Your task to perform on an android device: toggle notification dots Image 0: 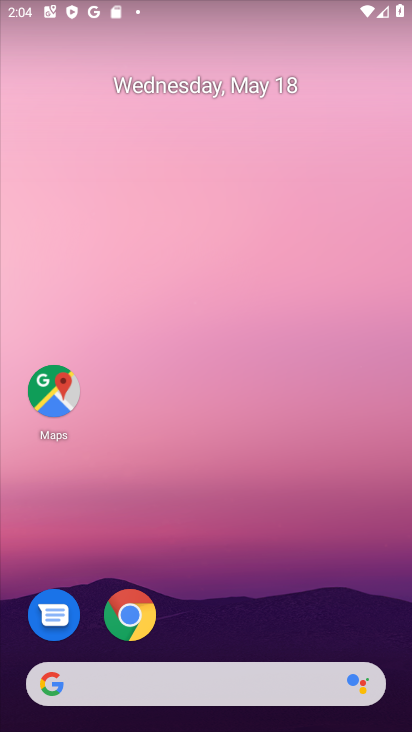
Step 0: drag from (204, 643) to (218, 171)
Your task to perform on an android device: toggle notification dots Image 1: 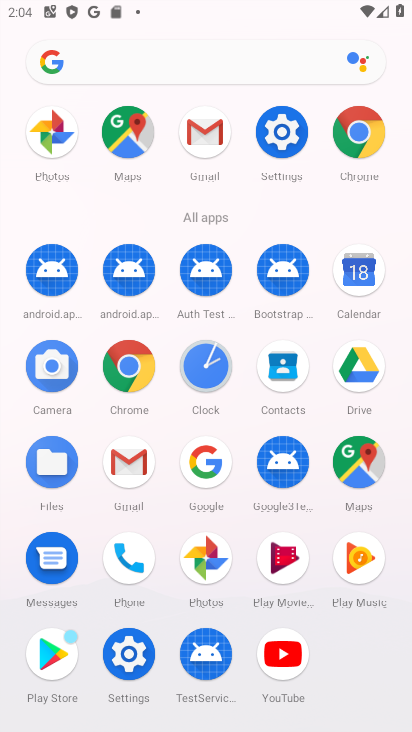
Step 1: click (276, 126)
Your task to perform on an android device: toggle notification dots Image 2: 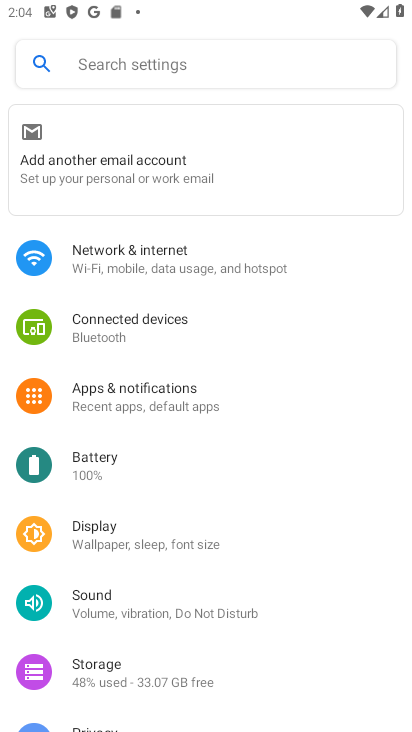
Step 2: click (216, 388)
Your task to perform on an android device: toggle notification dots Image 3: 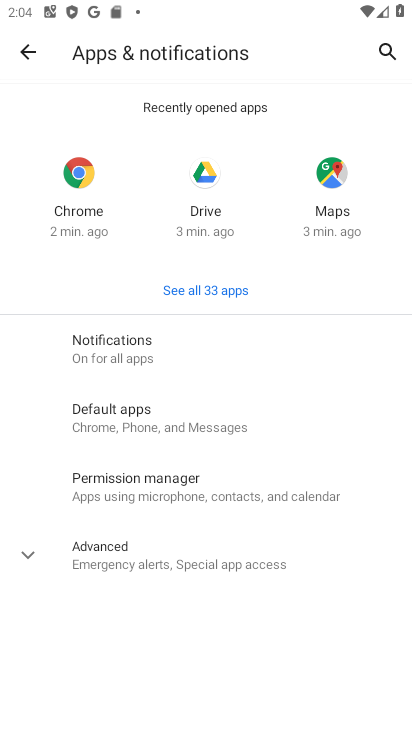
Step 3: click (211, 355)
Your task to perform on an android device: toggle notification dots Image 4: 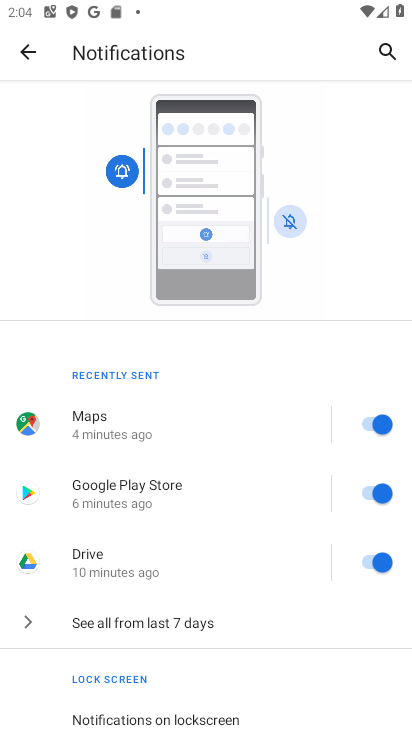
Step 4: drag from (267, 659) to (288, 206)
Your task to perform on an android device: toggle notification dots Image 5: 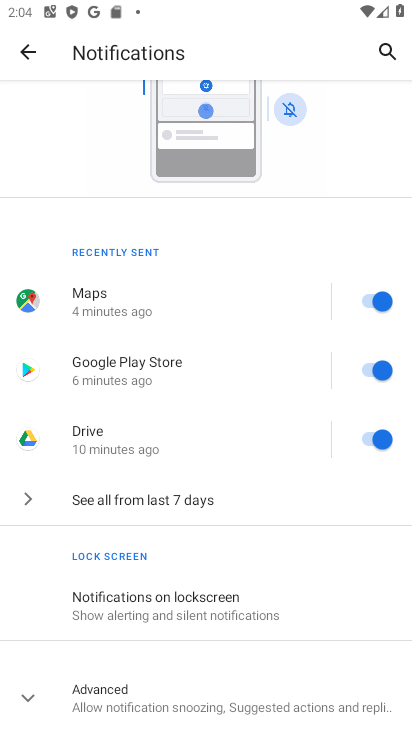
Step 5: click (266, 695)
Your task to perform on an android device: toggle notification dots Image 6: 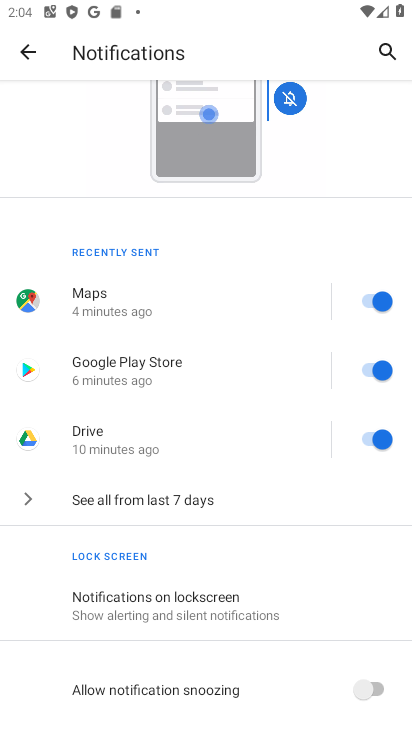
Step 6: drag from (253, 640) to (253, 343)
Your task to perform on an android device: toggle notification dots Image 7: 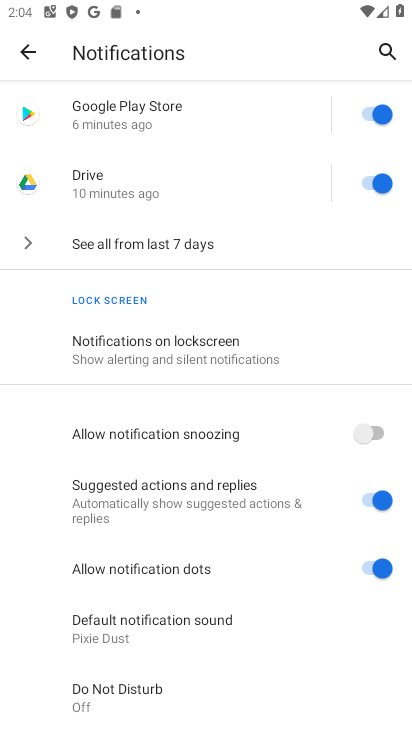
Step 7: click (382, 571)
Your task to perform on an android device: toggle notification dots Image 8: 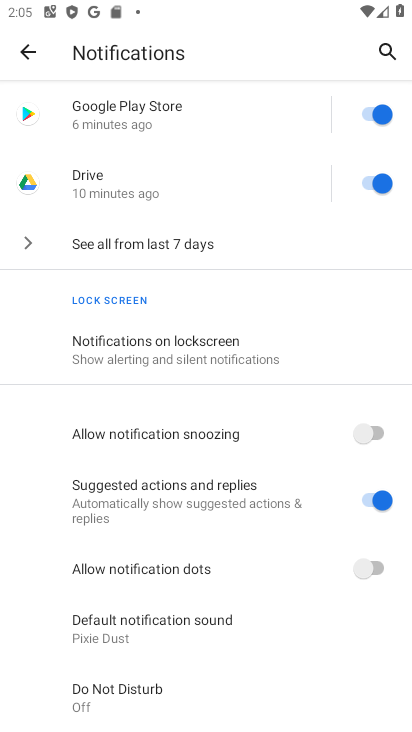
Step 8: task complete